Your task to perform on an android device: clear all cookies in the chrome app Image 0: 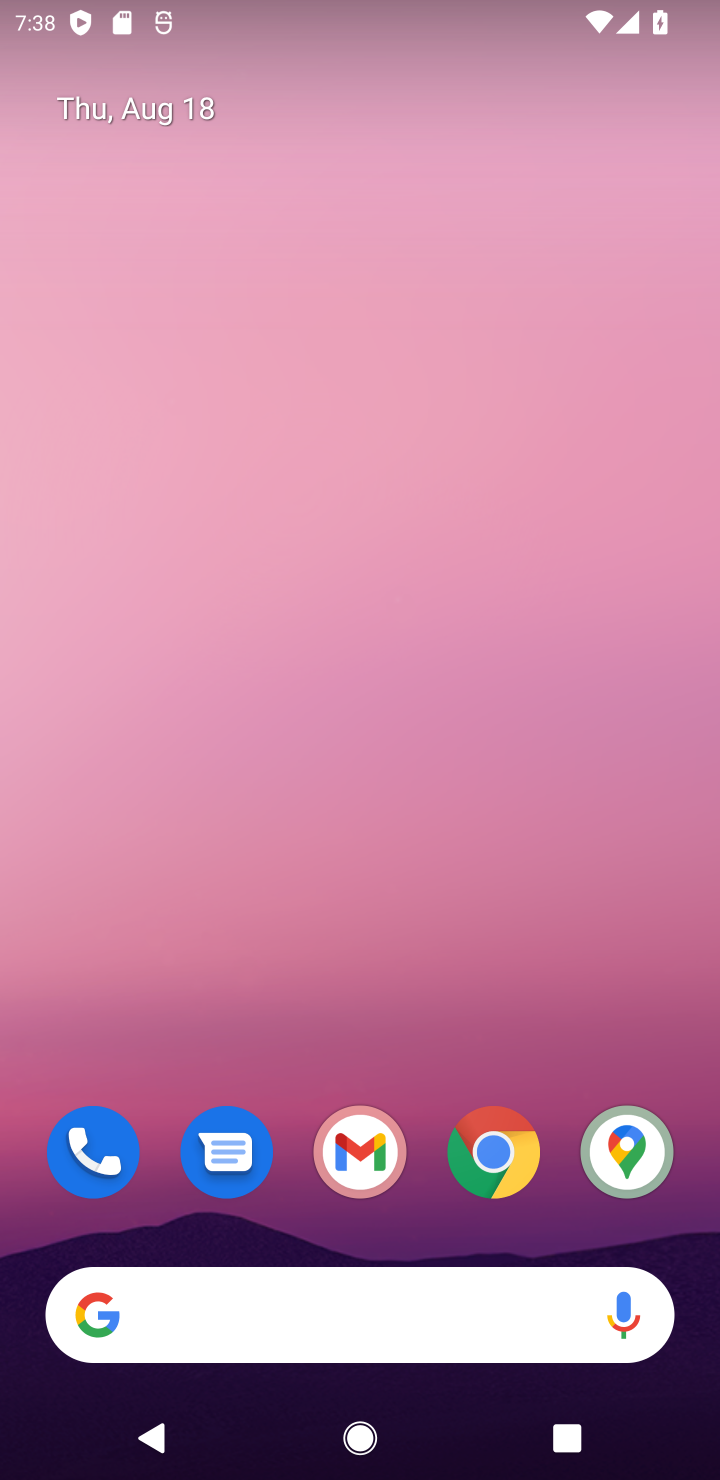
Step 0: press home button
Your task to perform on an android device: clear all cookies in the chrome app Image 1: 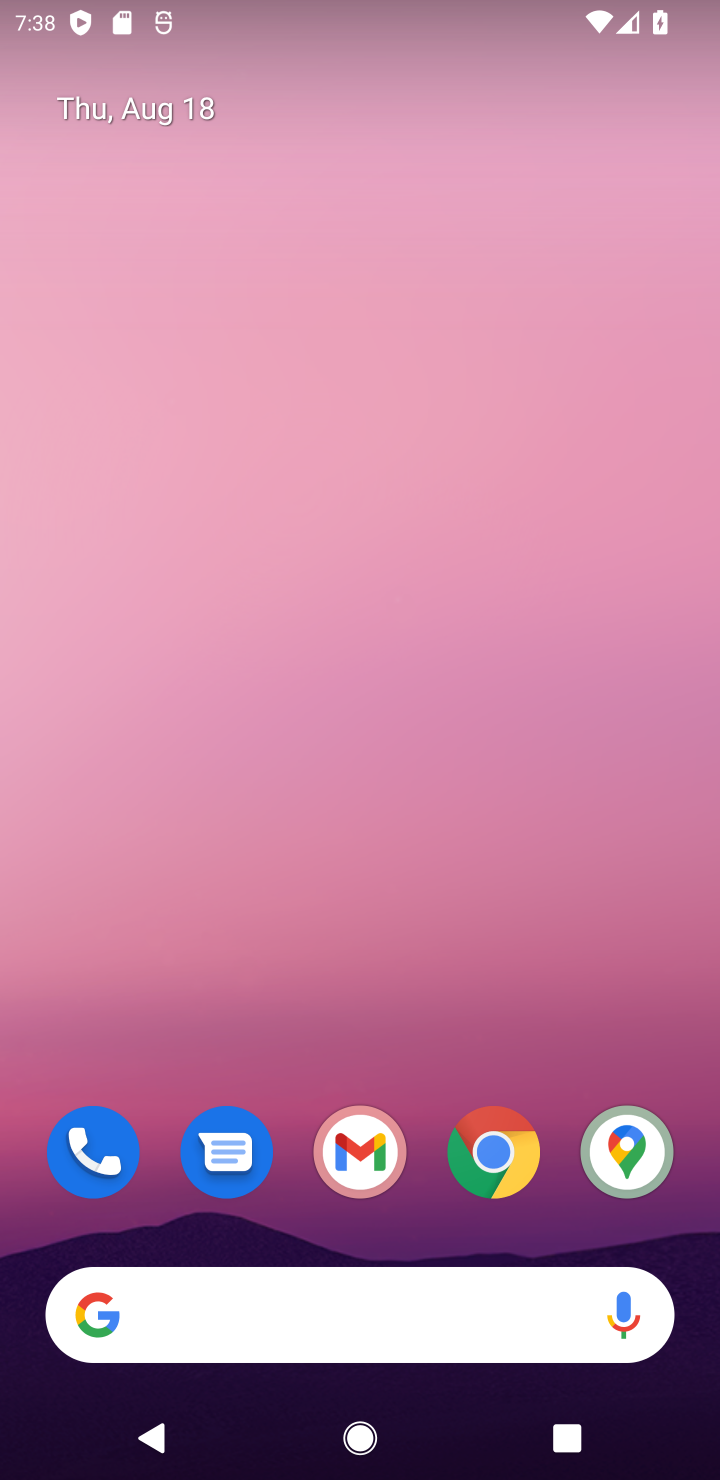
Step 1: click (495, 1187)
Your task to perform on an android device: clear all cookies in the chrome app Image 2: 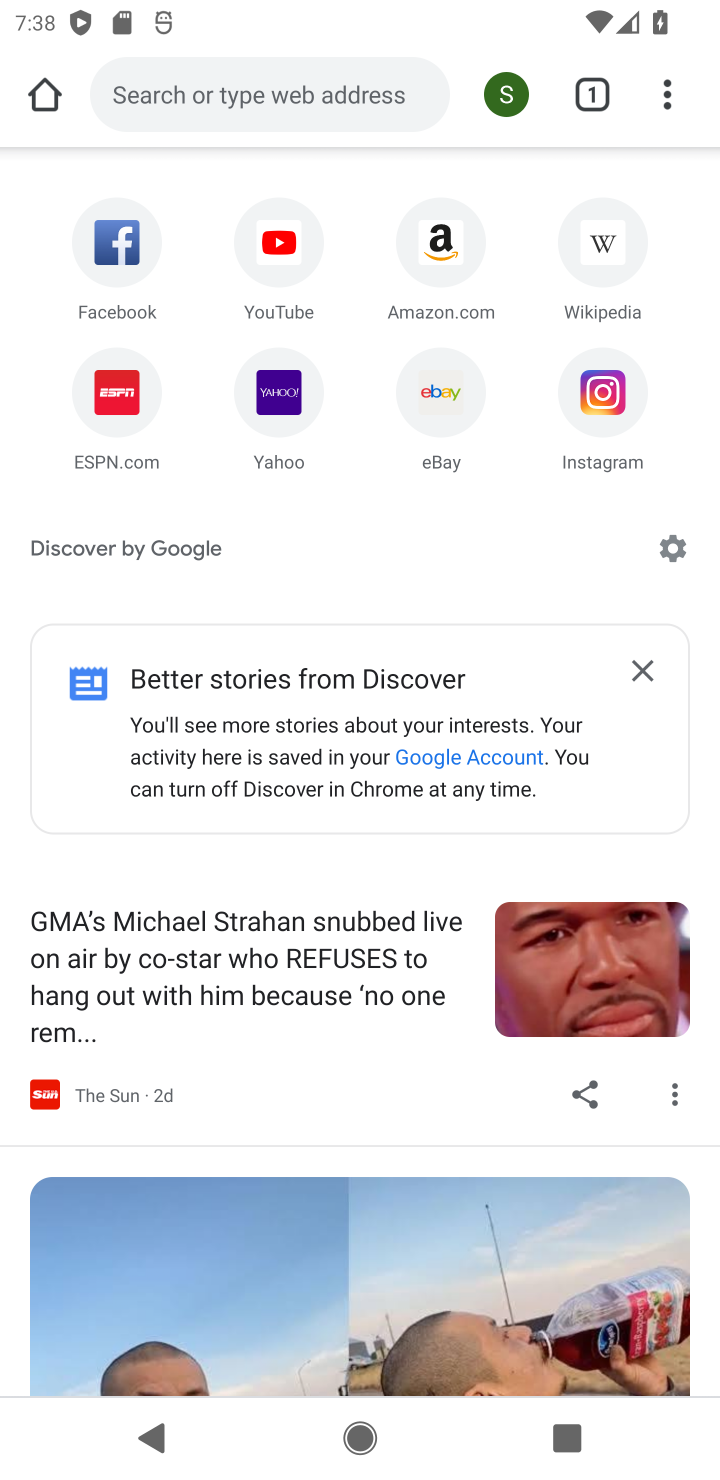
Step 2: drag from (672, 79) to (374, 989)
Your task to perform on an android device: clear all cookies in the chrome app Image 3: 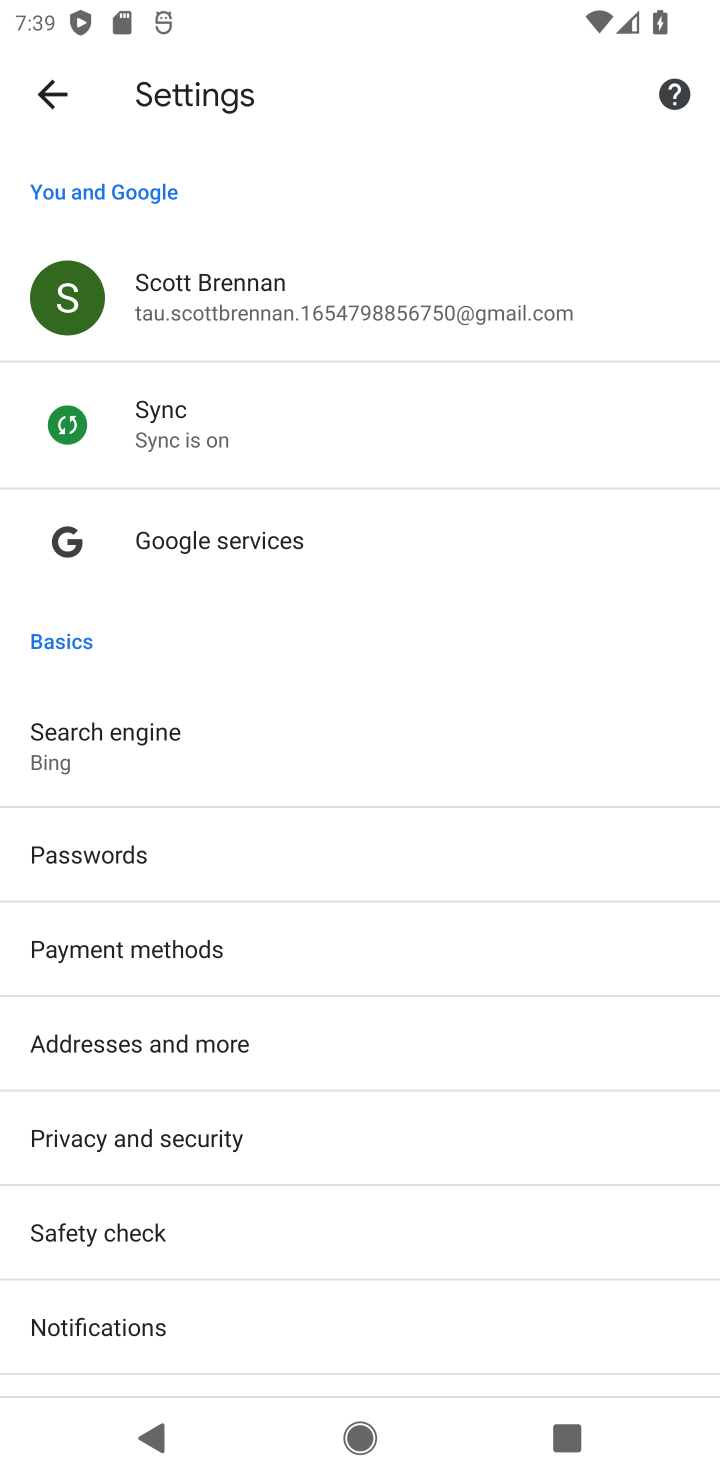
Step 3: click (164, 1134)
Your task to perform on an android device: clear all cookies in the chrome app Image 4: 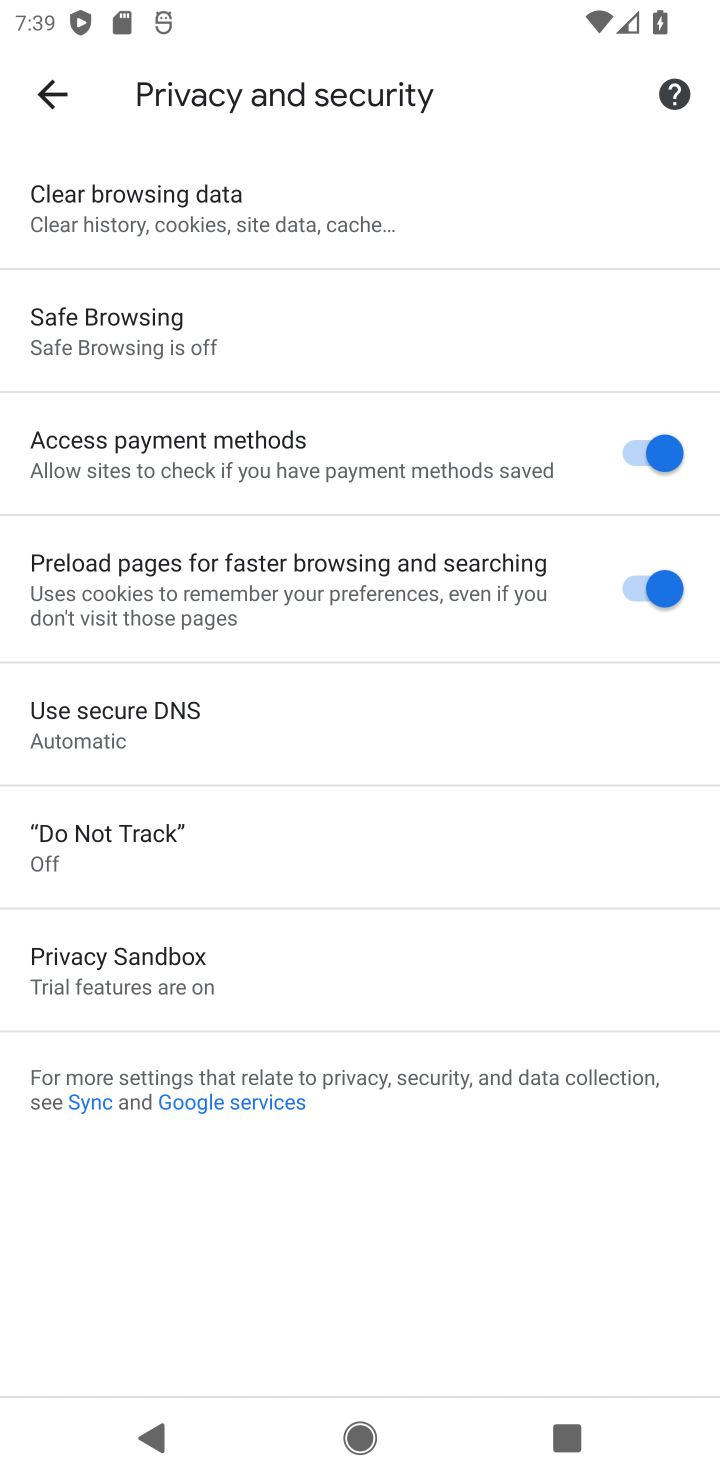
Step 4: click (133, 229)
Your task to perform on an android device: clear all cookies in the chrome app Image 5: 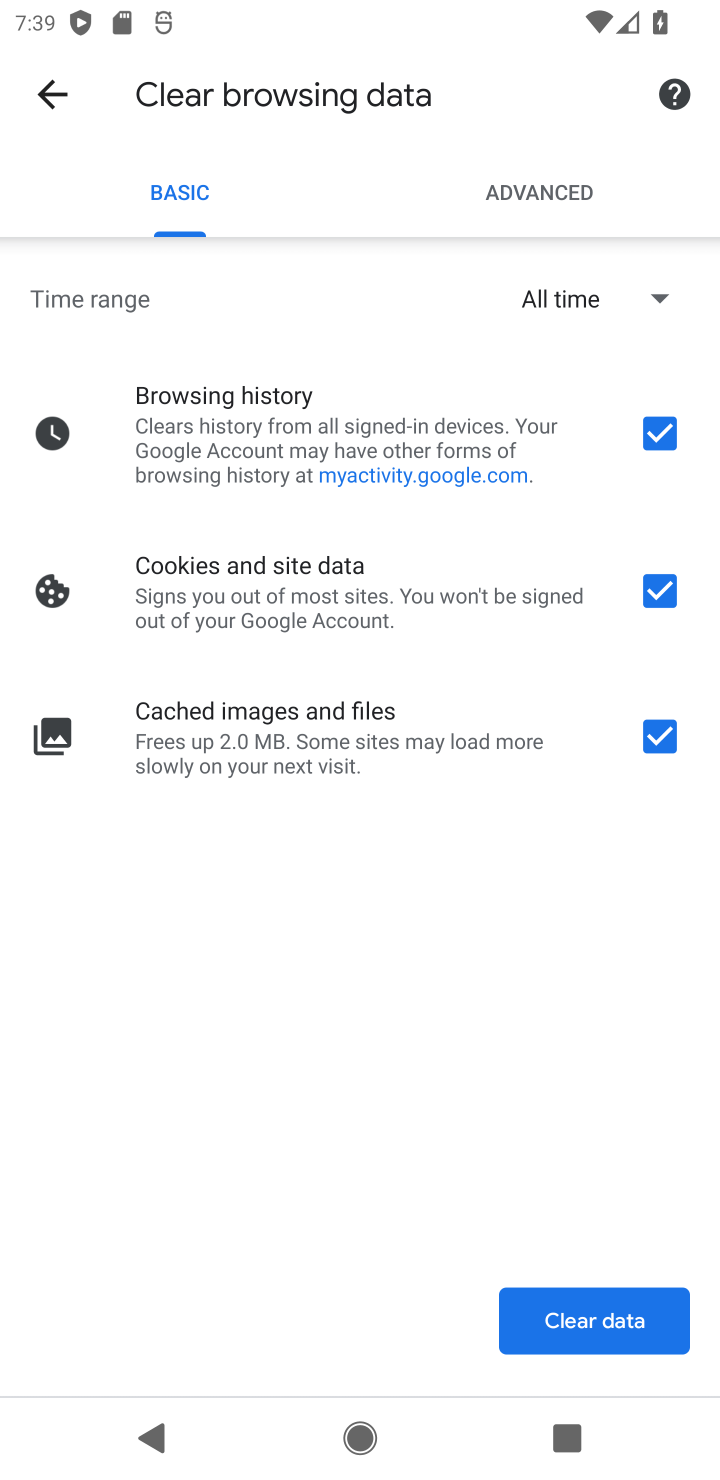
Step 5: click (654, 436)
Your task to perform on an android device: clear all cookies in the chrome app Image 6: 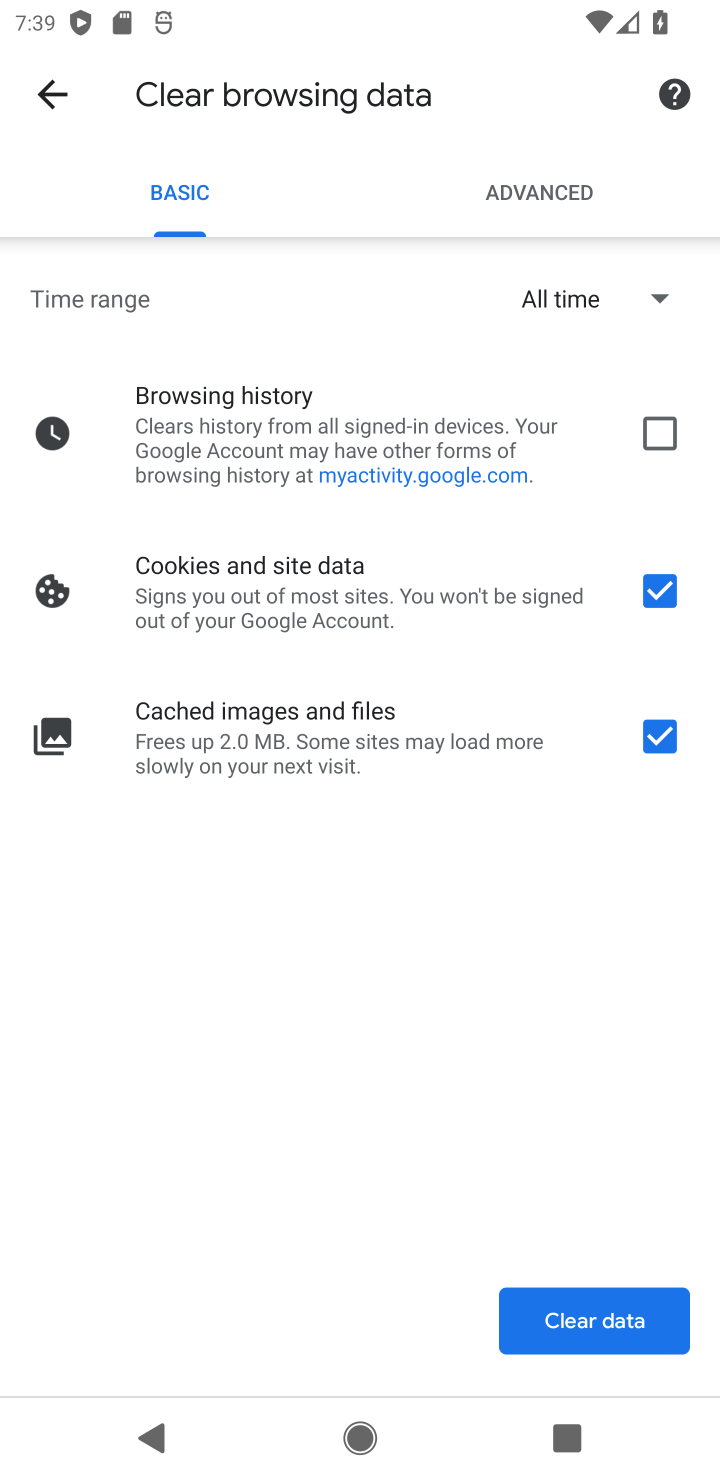
Step 6: click (661, 735)
Your task to perform on an android device: clear all cookies in the chrome app Image 7: 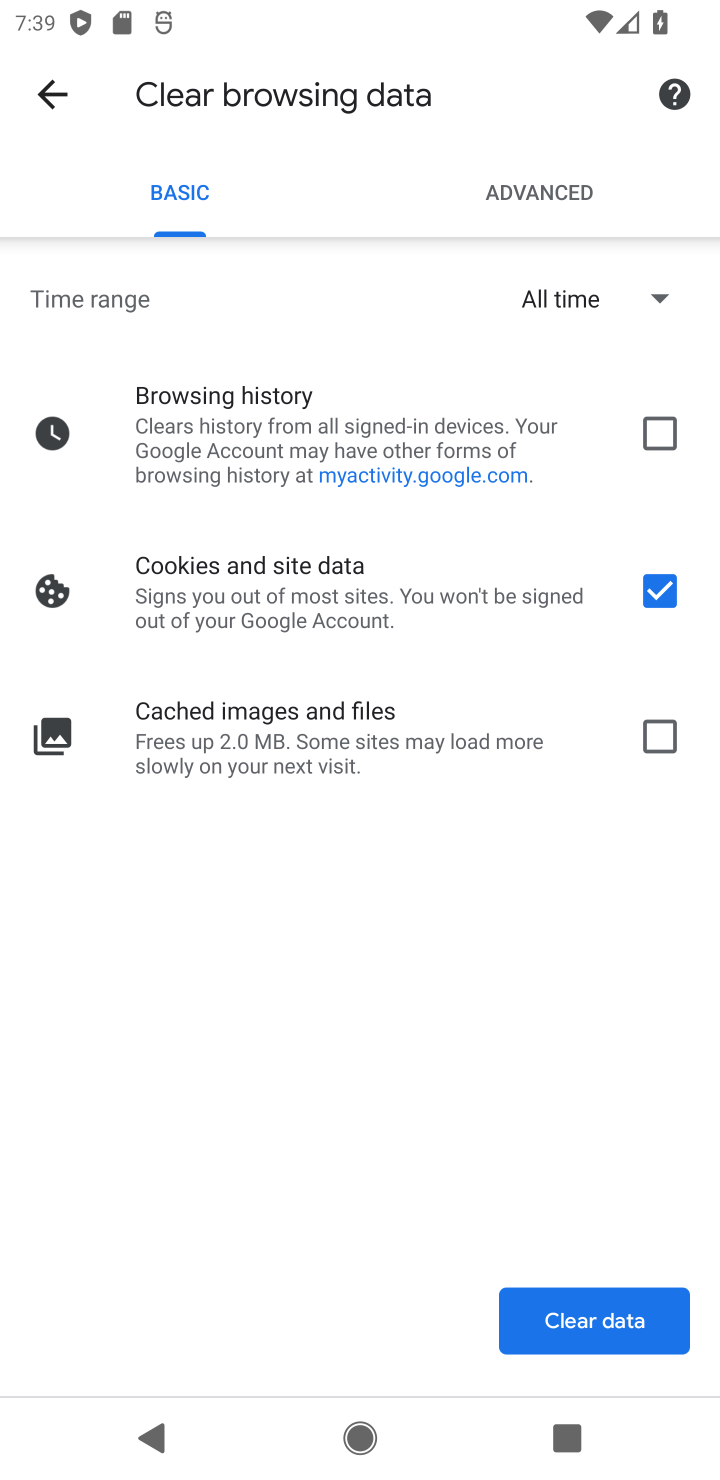
Step 7: click (582, 1315)
Your task to perform on an android device: clear all cookies in the chrome app Image 8: 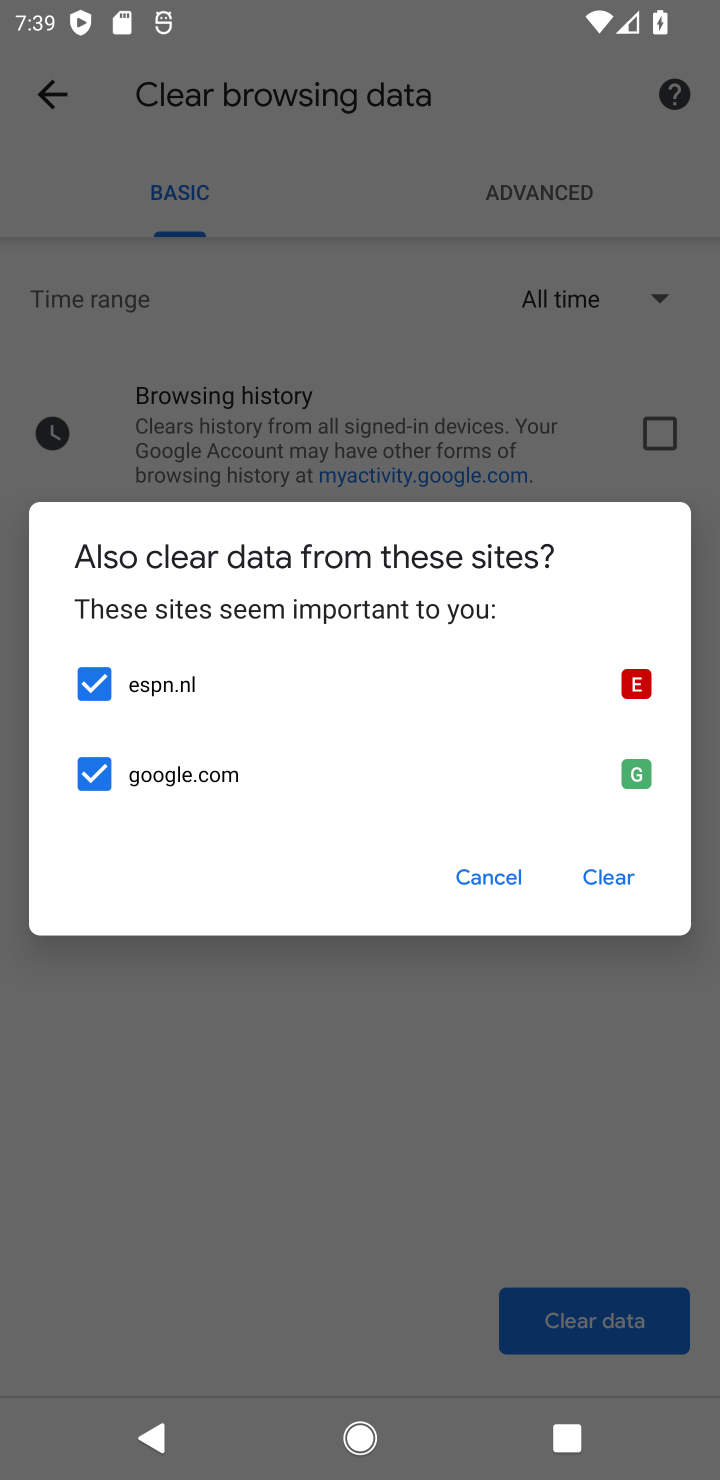
Step 8: click (613, 875)
Your task to perform on an android device: clear all cookies in the chrome app Image 9: 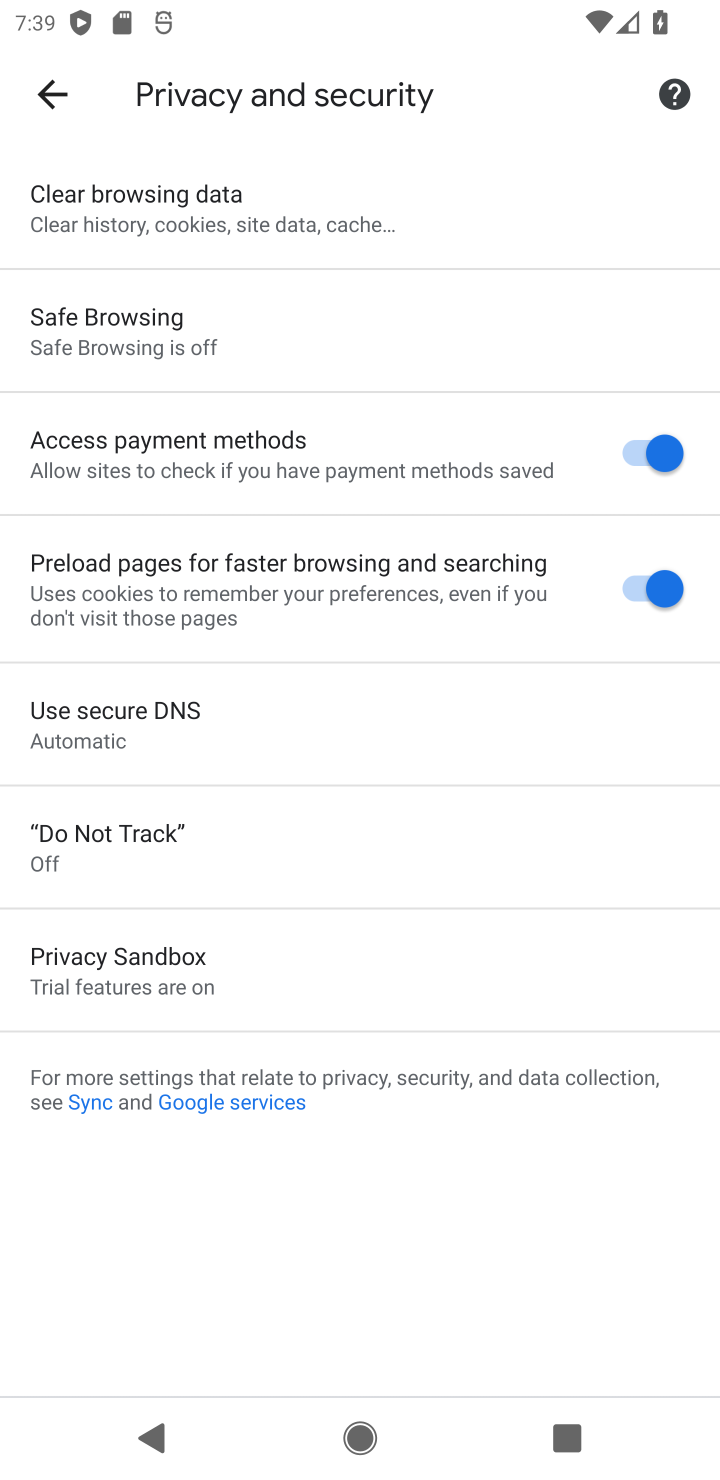
Step 9: task complete